Your task to perform on an android device: empty trash in google photos Image 0: 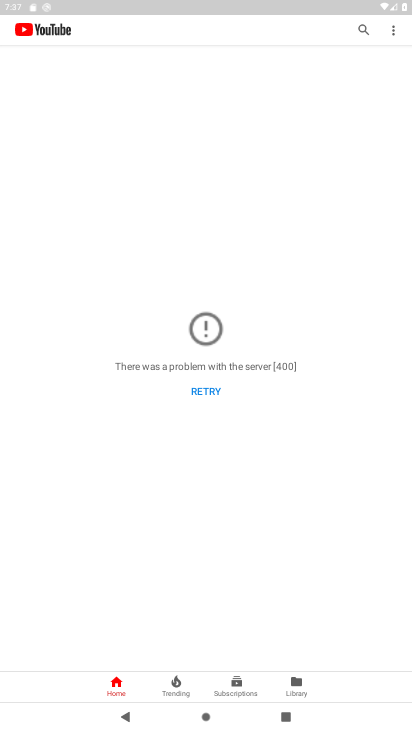
Step 0: press home button
Your task to perform on an android device: empty trash in google photos Image 1: 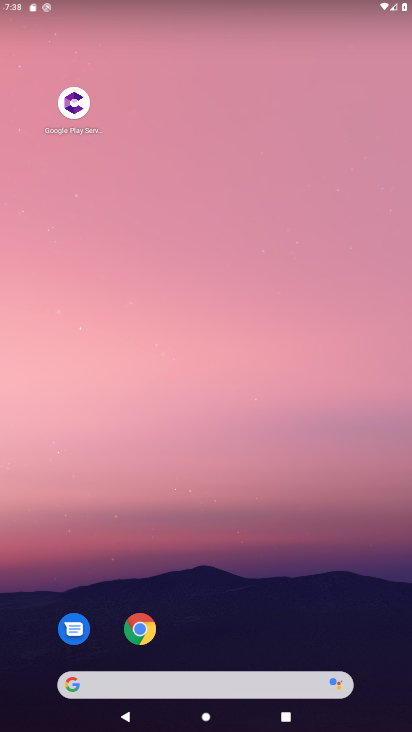
Step 1: drag from (330, 598) to (303, 264)
Your task to perform on an android device: empty trash in google photos Image 2: 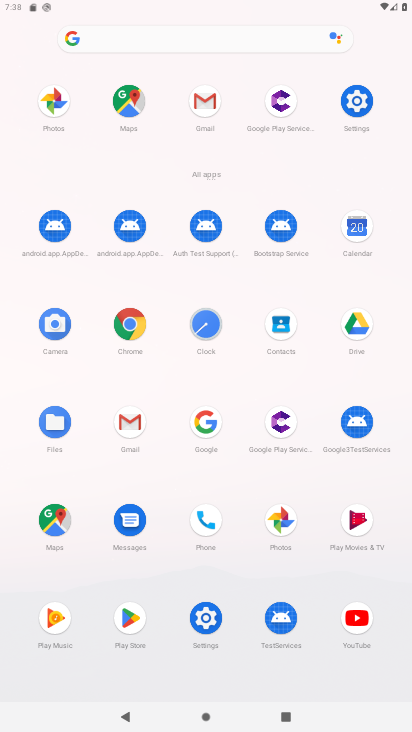
Step 2: click (281, 520)
Your task to perform on an android device: empty trash in google photos Image 3: 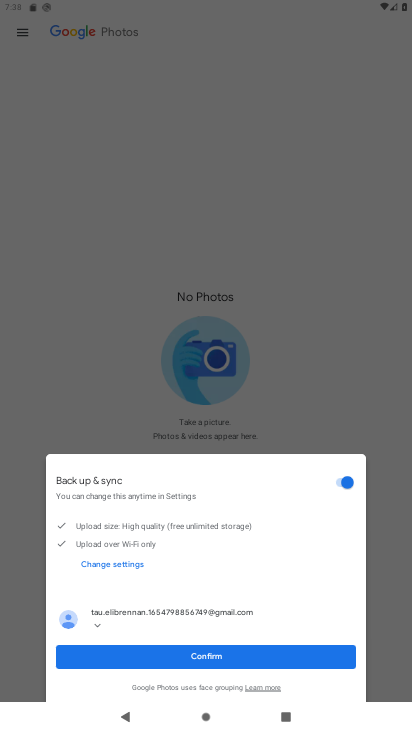
Step 3: click (228, 660)
Your task to perform on an android device: empty trash in google photos Image 4: 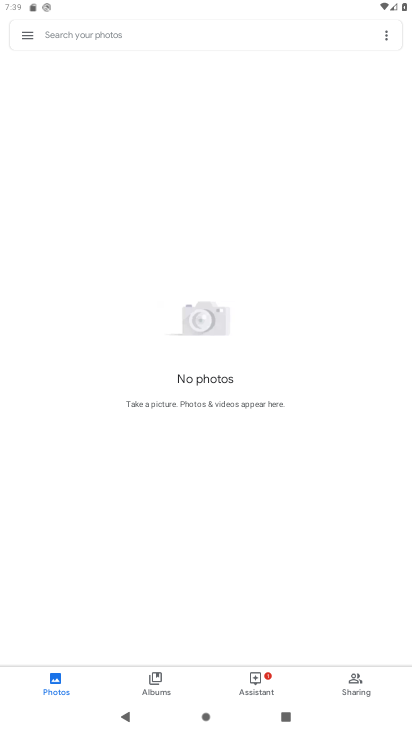
Step 4: click (26, 38)
Your task to perform on an android device: empty trash in google photos Image 5: 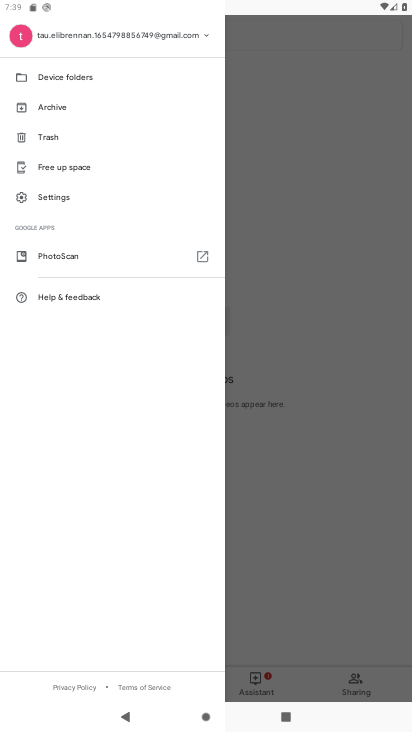
Step 5: click (54, 134)
Your task to perform on an android device: empty trash in google photos Image 6: 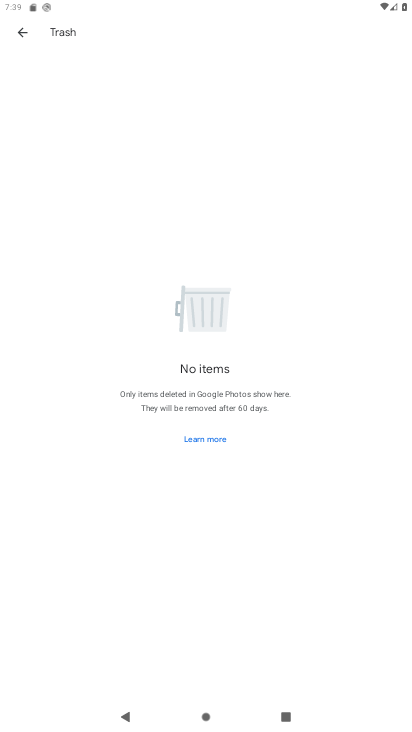
Step 6: task complete